Your task to perform on an android device: Go to Amazon Image 0: 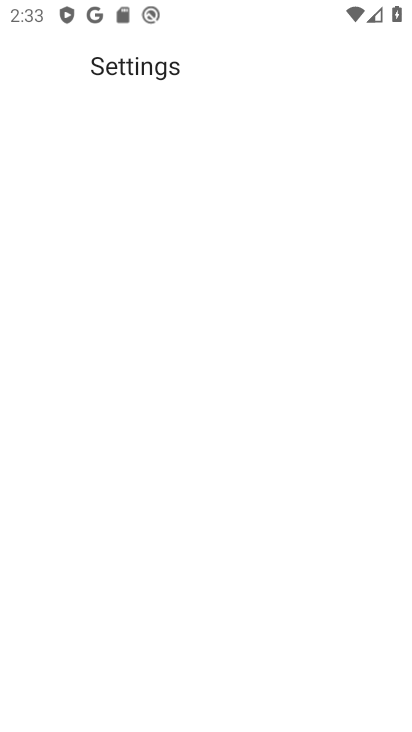
Step 0: drag from (309, 492) to (216, 17)
Your task to perform on an android device: Go to Amazon Image 1: 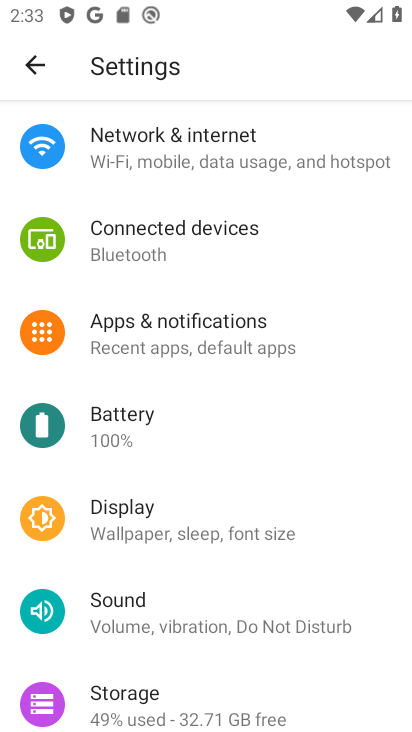
Step 1: press back button
Your task to perform on an android device: Go to Amazon Image 2: 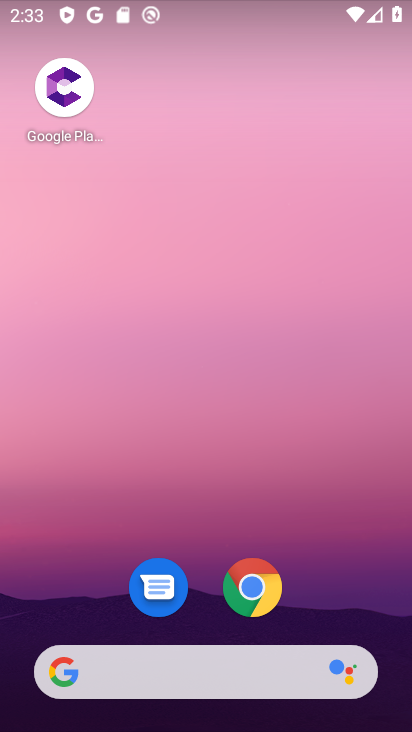
Step 2: click (254, 586)
Your task to perform on an android device: Go to Amazon Image 3: 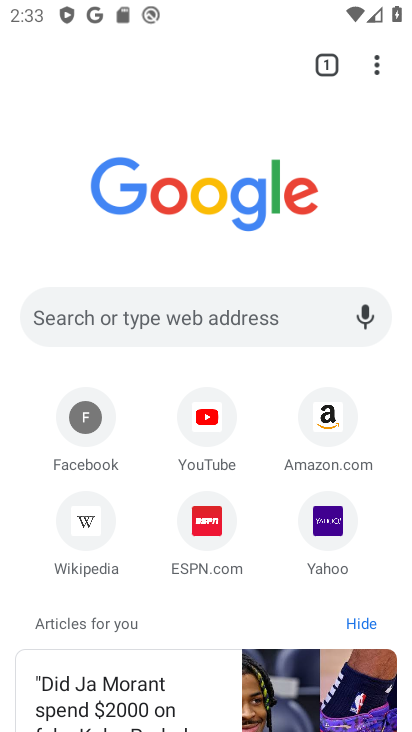
Step 3: click (318, 413)
Your task to perform on an android device: Go to Amazon Image 4: 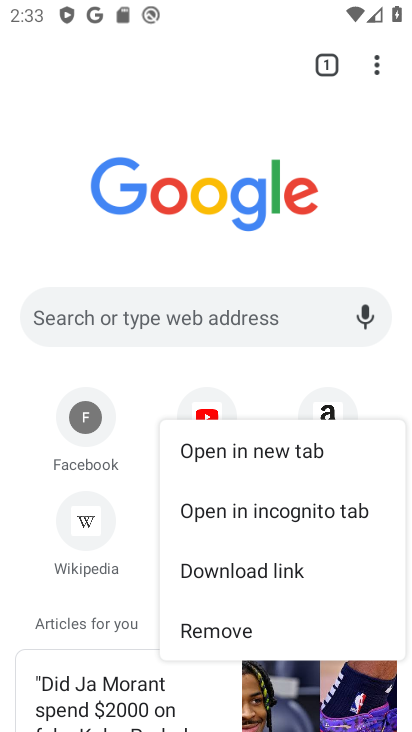
Step 4: click (326, 404)
Your task to perform on an android device: Go to Amazon Image 5: 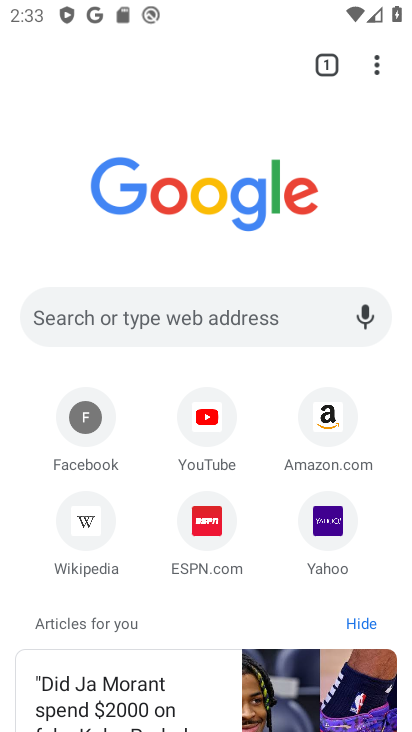
Step 5: click (326, 411)
Your task to perform on an android device: Go to Amazon Image 6: 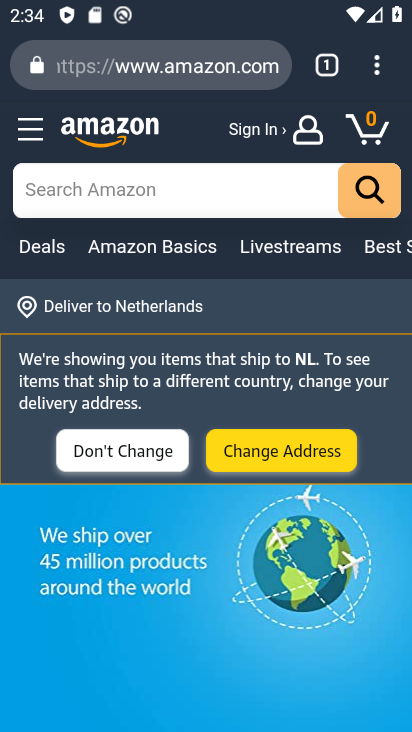
Step 6: task complete